Your task to perform on an android device: change the upload size in google photos Image 0: 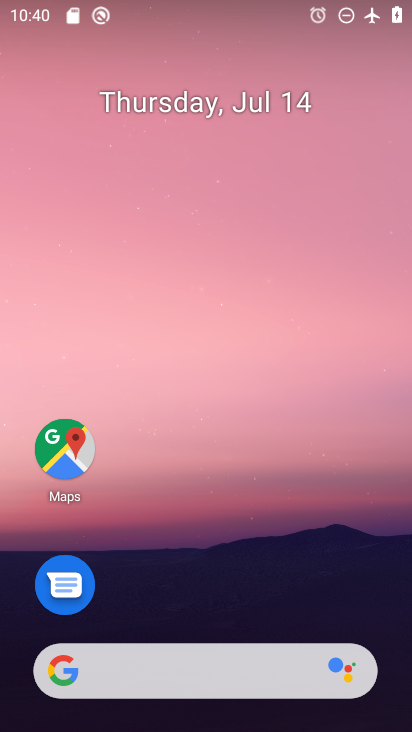
Step 0: drag from (211, 608) to (159, 74)
Your task to perform on an android device: change the upload size in google photos Image 1: 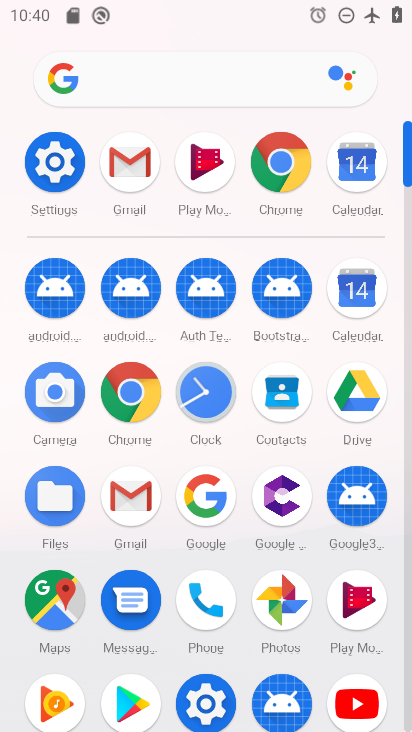
Step 1: click (302, 592)
Your task to perform on an android device: change the upload size in google photos Image 2: 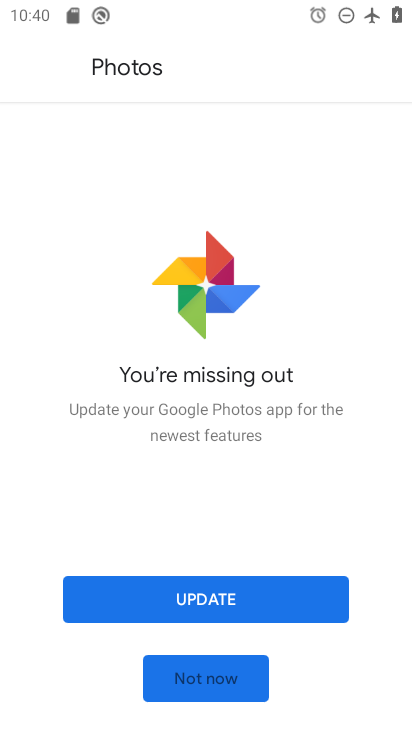
Step 2: click (209, 676)
Your task to perform on an android device: change the upload size in google photos Image 3: 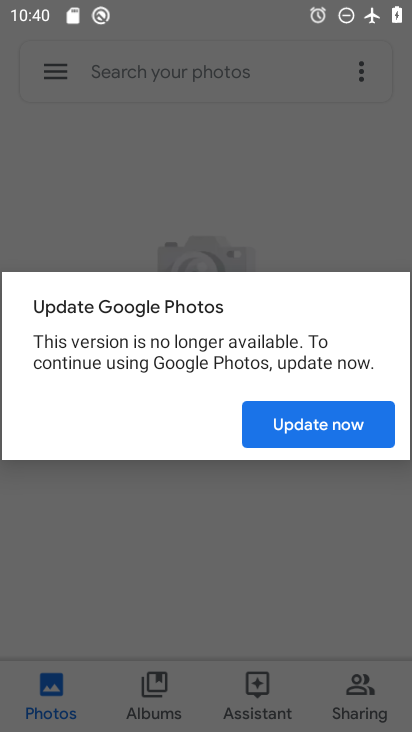
Step 3: click (143, 221)
Your task to perform on an android device: change the upload size in google photos Image 4: 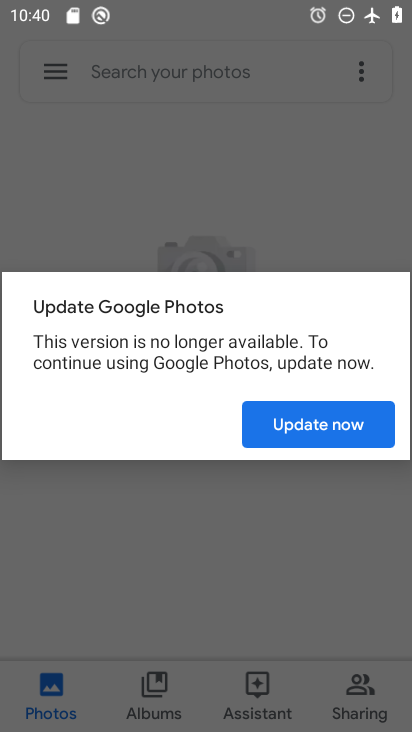
Step 4: click (291, 415)
Your task to perform on an android device: change the upload size in google photos Image 5: 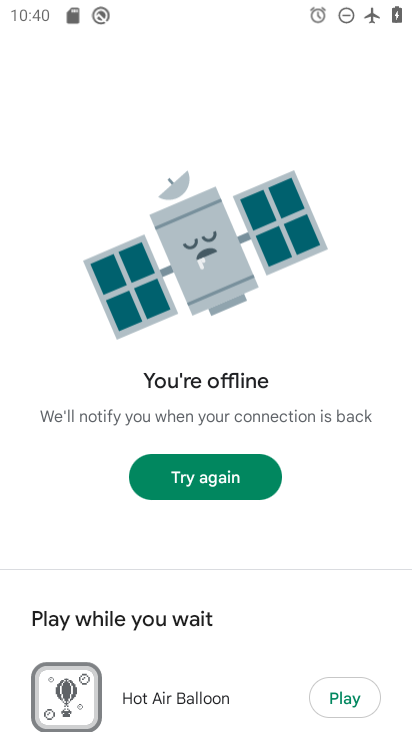
Step 5: click (196, 487)
Your task to perform on an android device: change the upload size in google photos Image 6: 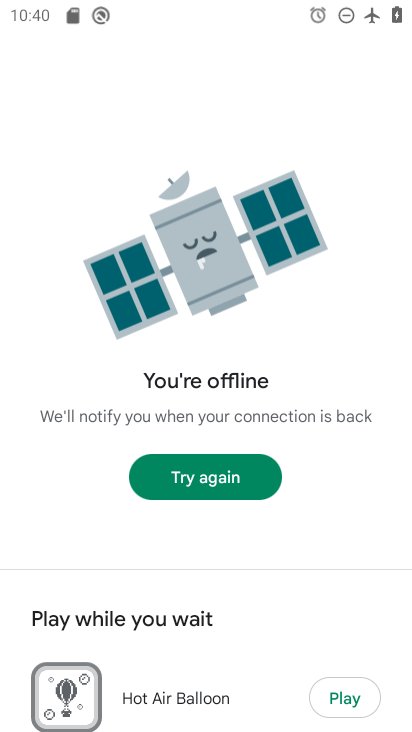
Step 6: task complete